Your task to perform on an android device: add a contact Image 0: 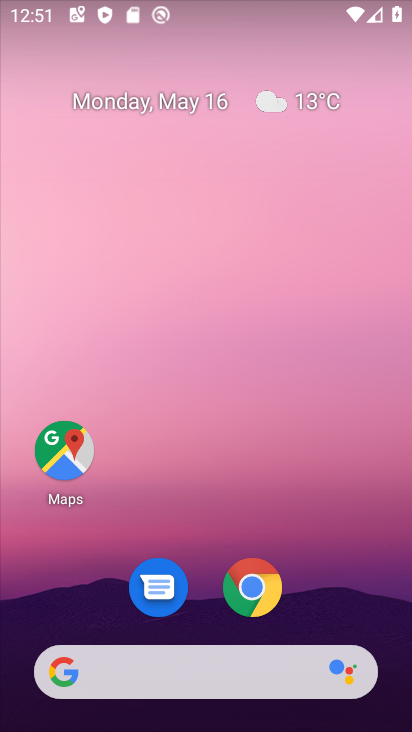
Step 0: drag from (216, 723) to (216, 119)
Your task to perform on an android device: add a contact Image 1: 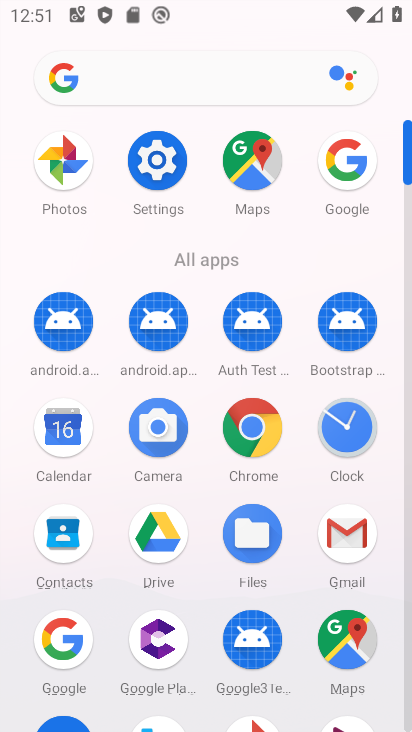
Step 1: click (61, 526)
Your task to perform on an android device: add a contact Image 2: 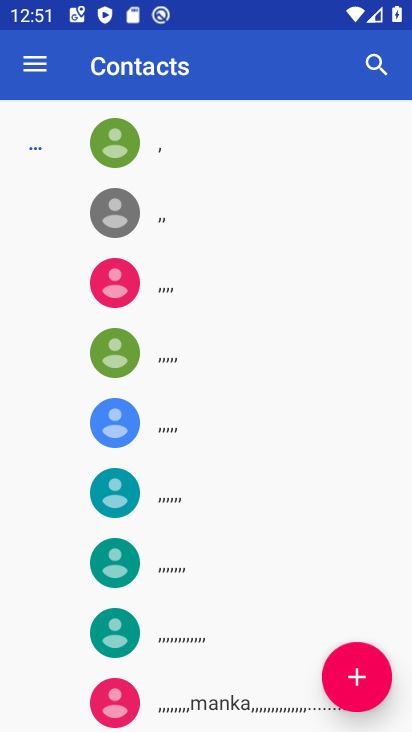
Step 2: click (347, 674)
Your task to perform on an android device: add a contact Image 3: 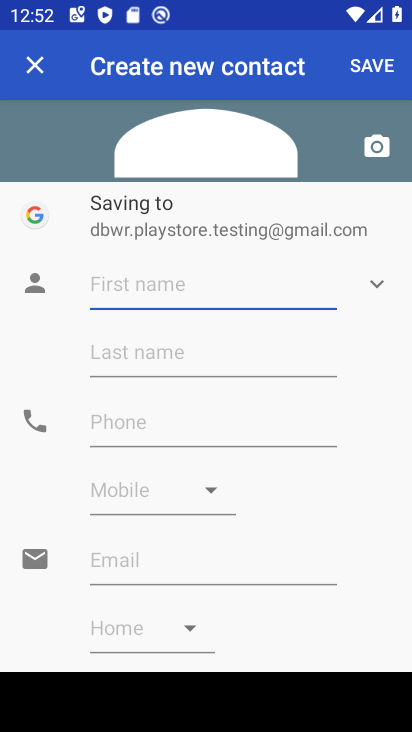
Step 3: type "nikhilllllsss"
Your task to perform on an android device: add a contact Image 4: 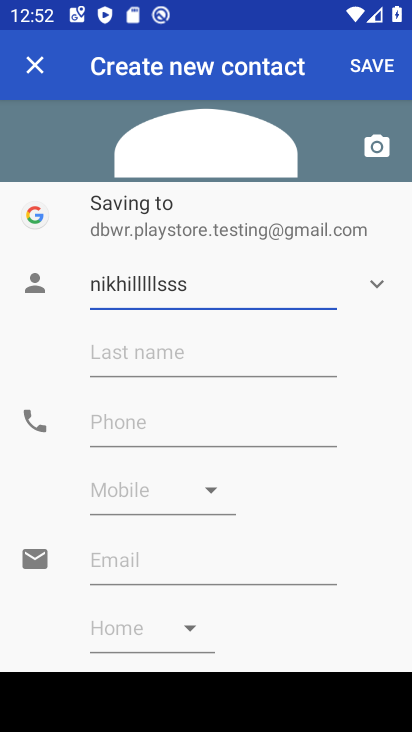
Step 4: click (126, 424)
Your task to perform on an android device: add a contact Image 5: 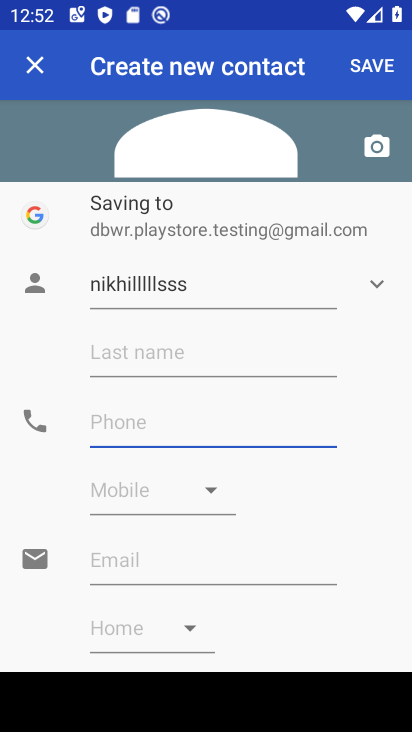
Step 5: type "898888"
Your task to perform on an android device: add a contact Image 6: 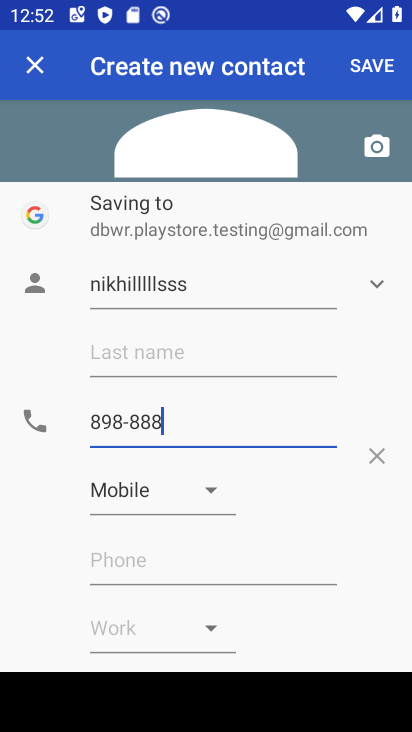
Step 6: click (378, 68)
Your task to perform on an android device: add a contact Image 7: 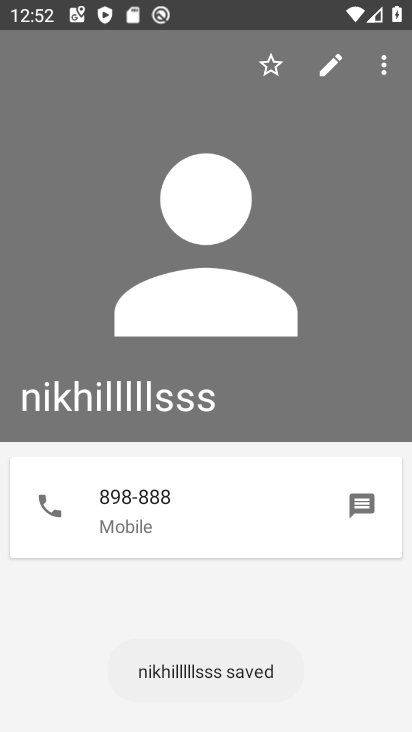
Step 7: task complete